Your task to perform on an android device: Search for Italian restaurants on Maps Image 0: 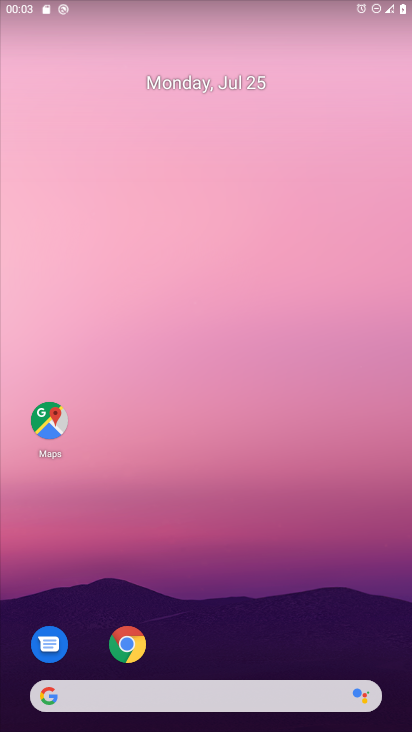
Step 0: click (47, 419)
Your task to perform on an android device: Search for Italian restaurants on Maps Image 1: 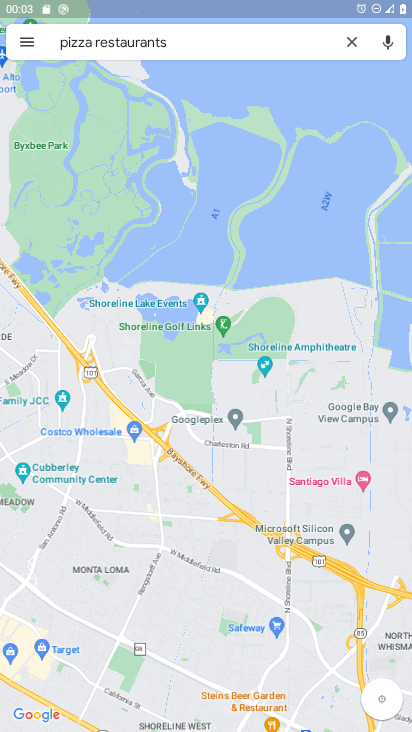
Step 1: click (347, 38)
Your task to perform on an android device: Search for Italian restaurants on Maps Image 2: 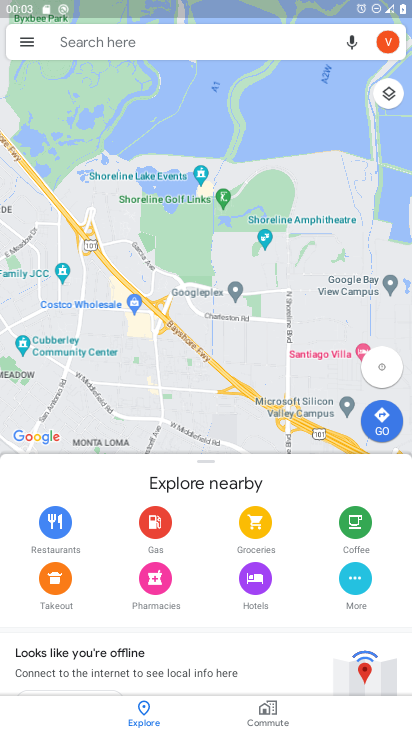
Step 2: click (103, 38)
Your task to perform on an android device: Search for Italian restaurants on Maps Image 3: 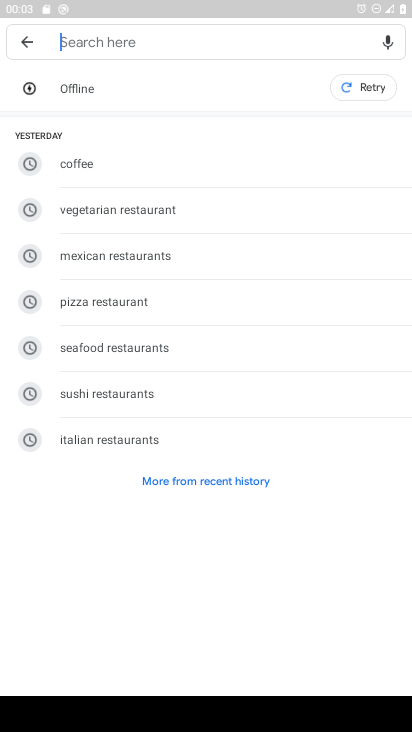
Step 3: type "italian restaurants"
Your task to perform on an android device: Search for Italian restaurants on Maps Image 4: 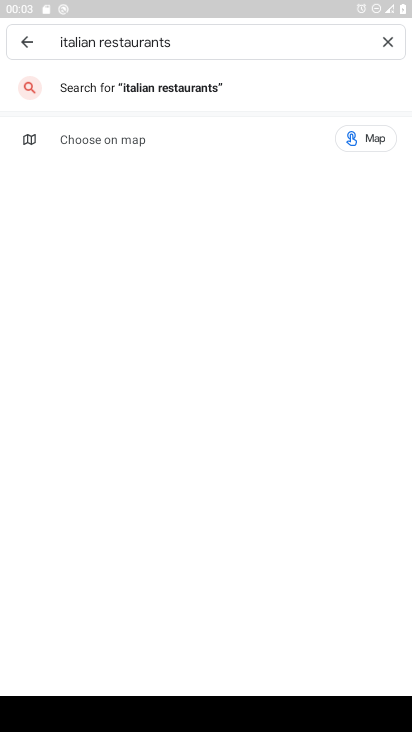
Step 4: click (152, 83)
Your task to perform on an android device: Search for Italian restaurants on Maps Image 5: 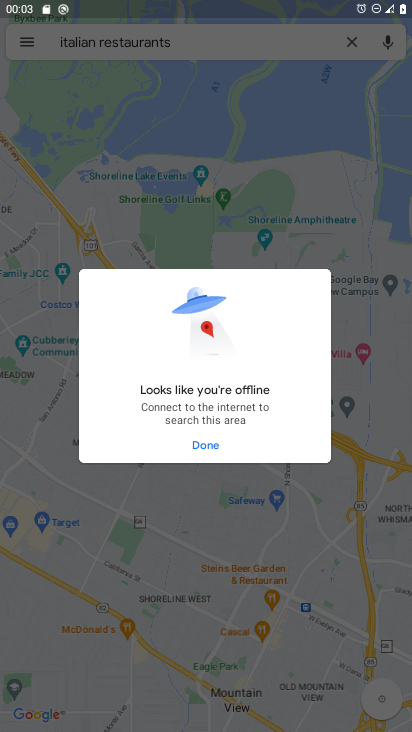
Step 5: click (206, 447)
Your task to perform on an android device: Search for Italian restaurants on Maps Image 6: 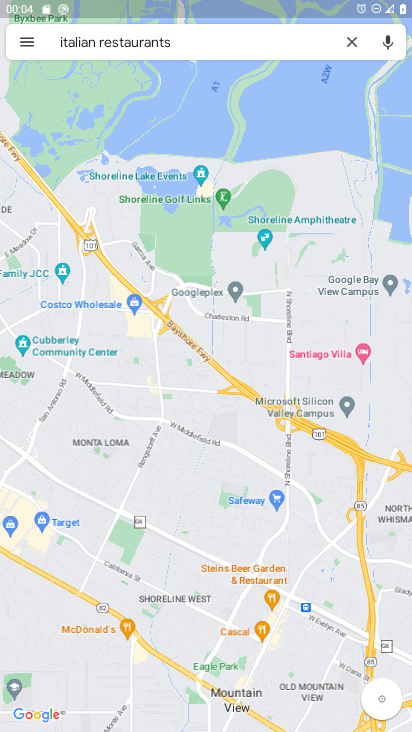
Step 6: task complete